Your task to perform on an android device: open a bookmark in the chrome app Image 0: 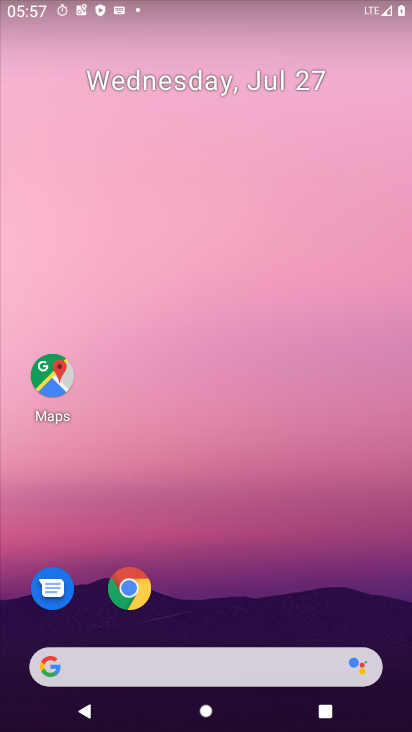
Step 0: drag from (237, 686) to (289, 79)
Your task to perform on an android device: open a bookmark in the chrome app Image 1: 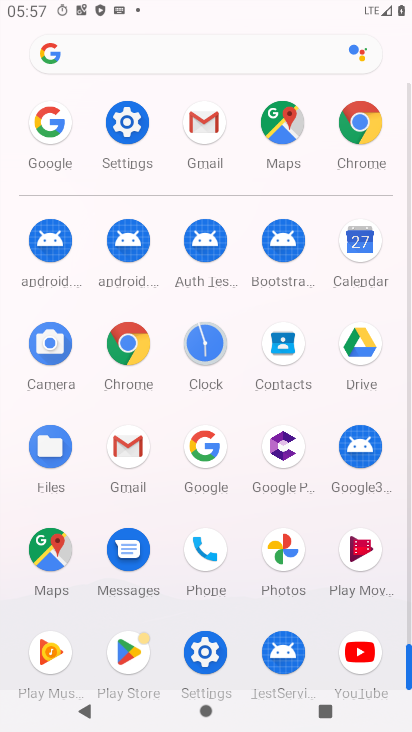
Step 1: click (115, 349)
Your task to perform on an android device: open a bookmark in the chrome app Image 2: 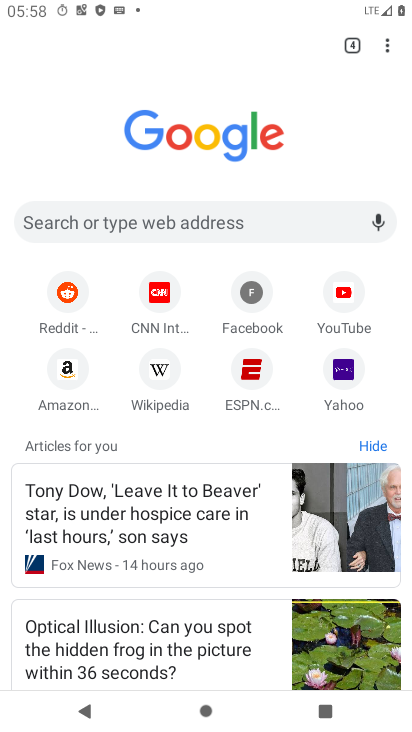
Step 2: click (383, 41)
Your task to perform on an android device: open a bookmark in the chrome app Image 3: 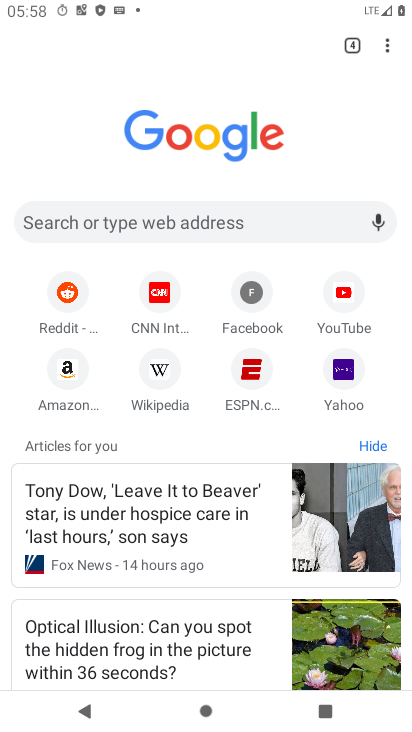
Step 3: click (389, 44)
Your task to perform on an android device: open a bookmark in the chrome app Image 4: 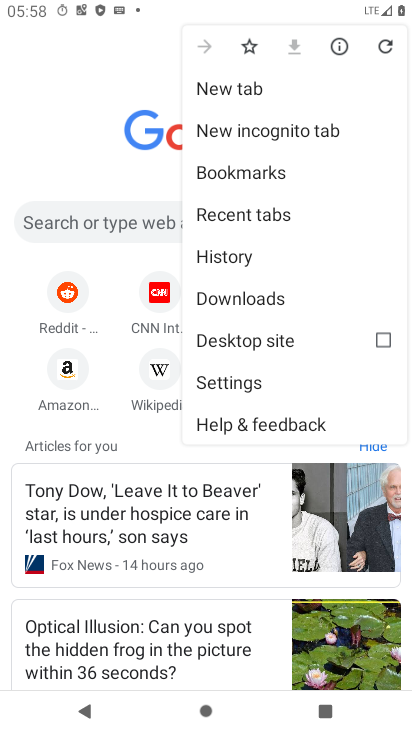
Step 4: click (295, 175)
Your task to perform on an android device: open a bookmark in the chrome app Image 5: 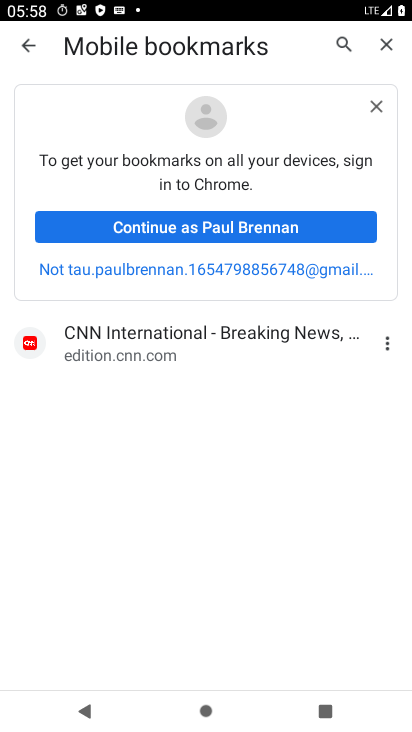
Step 5: task complete